Your task to perform on an android device: Open calendar and show me the second week of next month Image 0: 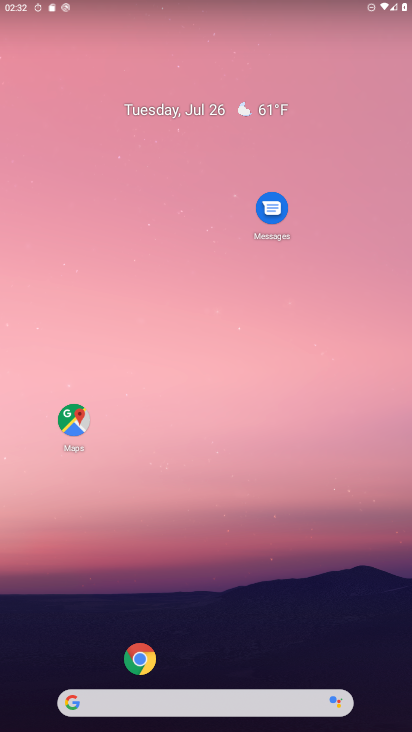
Step 0: drag from (51, 681) to (250, 151)
Your task to perform on an android device: Open calendar and show me the second week of next month Image 1: 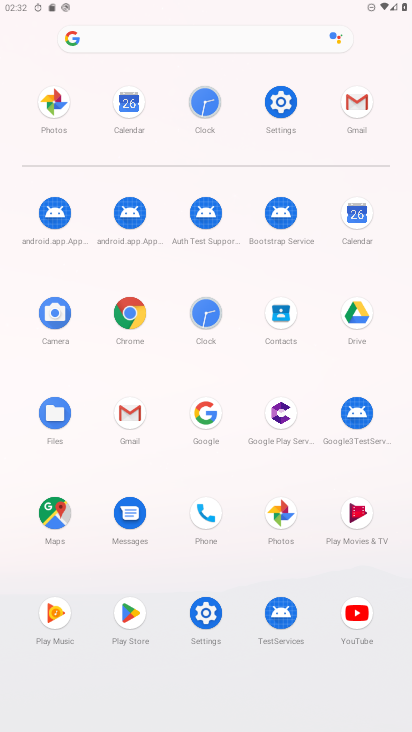
Step 1: click (386, 231)
Your task to perform on an android device: Open calendar and show me the second week of next month Image 2: 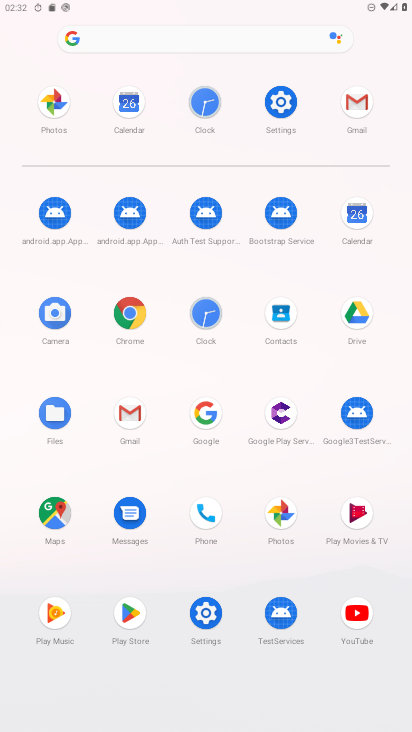
Step 2: click (364, 225)
Your task to perform on an android device: Open calendar and show me the second week of next month Image 3: 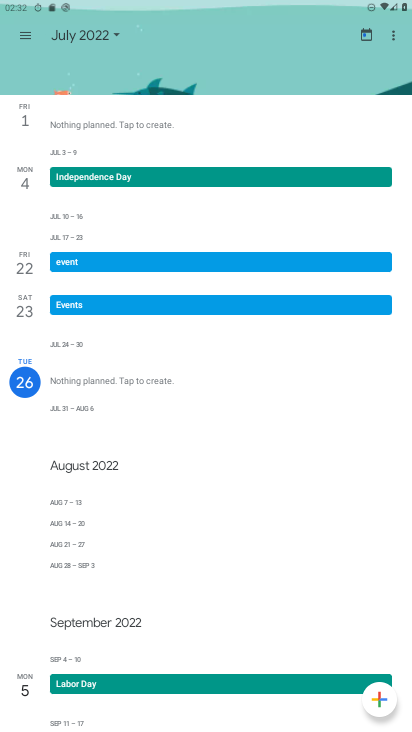
Step 3: click (113, 34)
Your task to perform on an android device: Open calendar and show me the second week of next month Image 4: 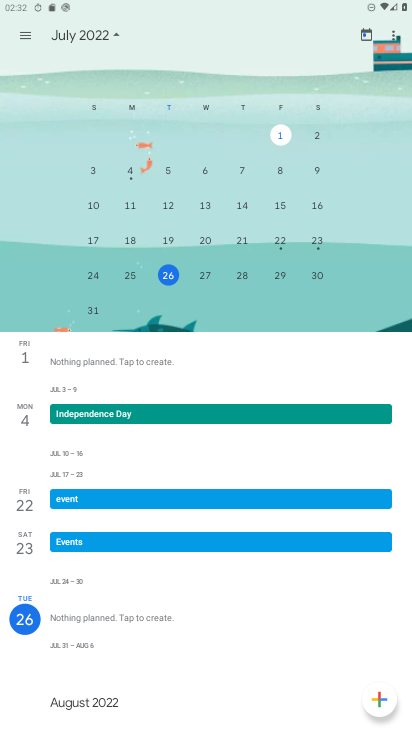
Step 4: drag from (324, 193) to (8, 247)
Your task to perform on an android device: Open calendar and show me the second week of next month Image 5: 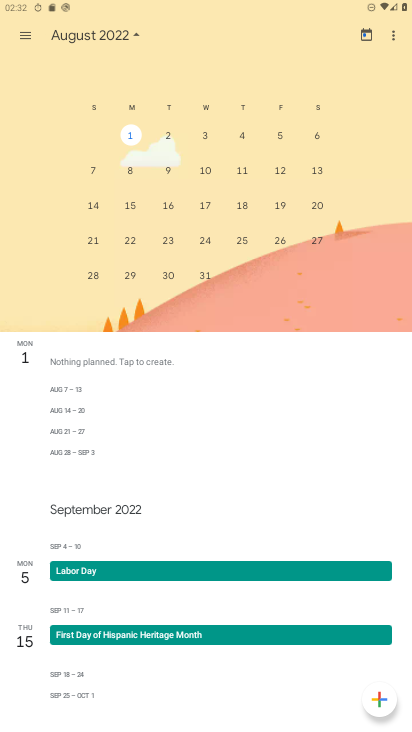
Step 5: click (132, 166)
Your task to perform on an android device: Open calendar and show me the second week of next month Image 6: 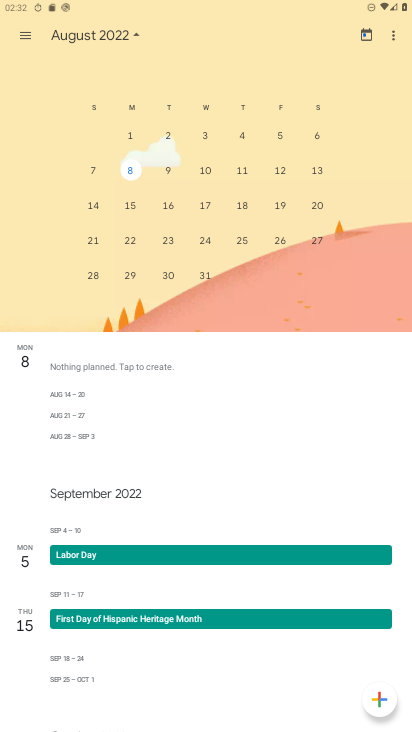
Step 6: task complete